Your task to perform on an android device: turn smart compose on in the gmail app Image 0: 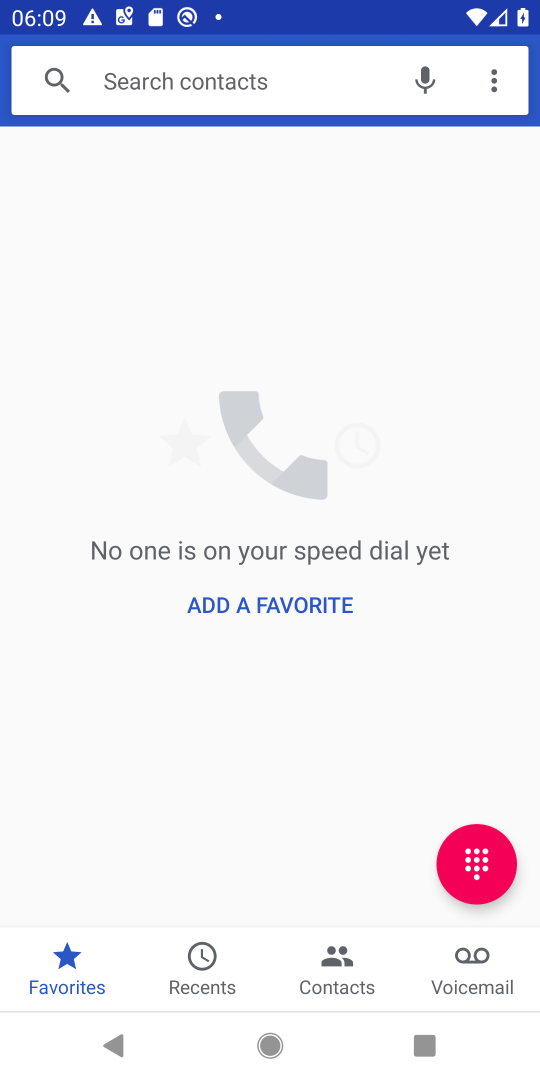
Step 0: press home button
Your task to perform on an android device: turn smart compose on in the gmail app Image 1: 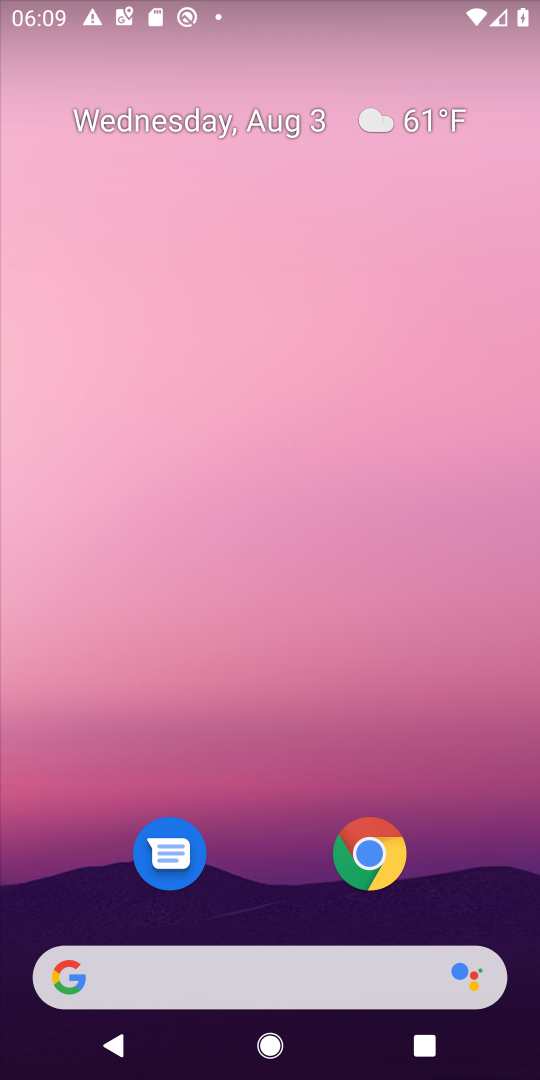
Step 1: drag from (259, 735) to (271, 243)
Your task to perform on an android device: turn smart compose on in the gmail app Image 2: 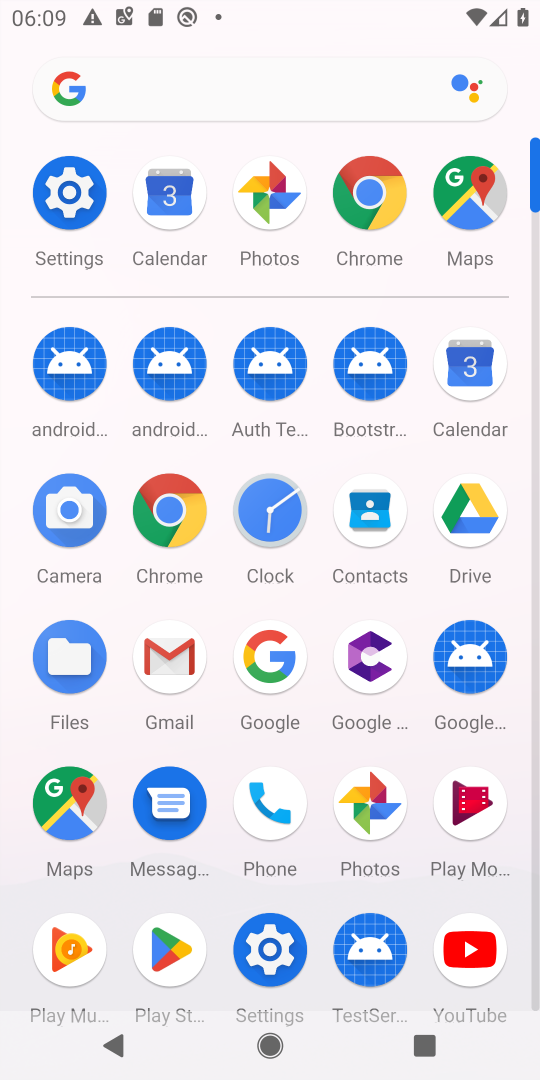
Step 2: click (172, 655)
Your task to perform on an android device: turn smart compose on in the gmail app Image 3: 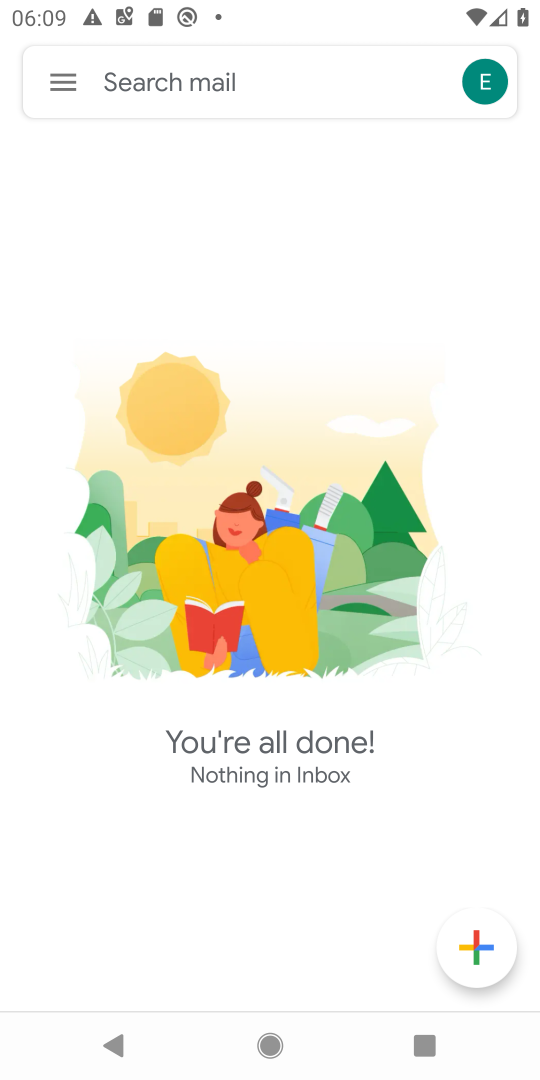
Step 3: click (66, 80)
Your task to perform on an android device: turn smart compose on in the gmail app Image 4: 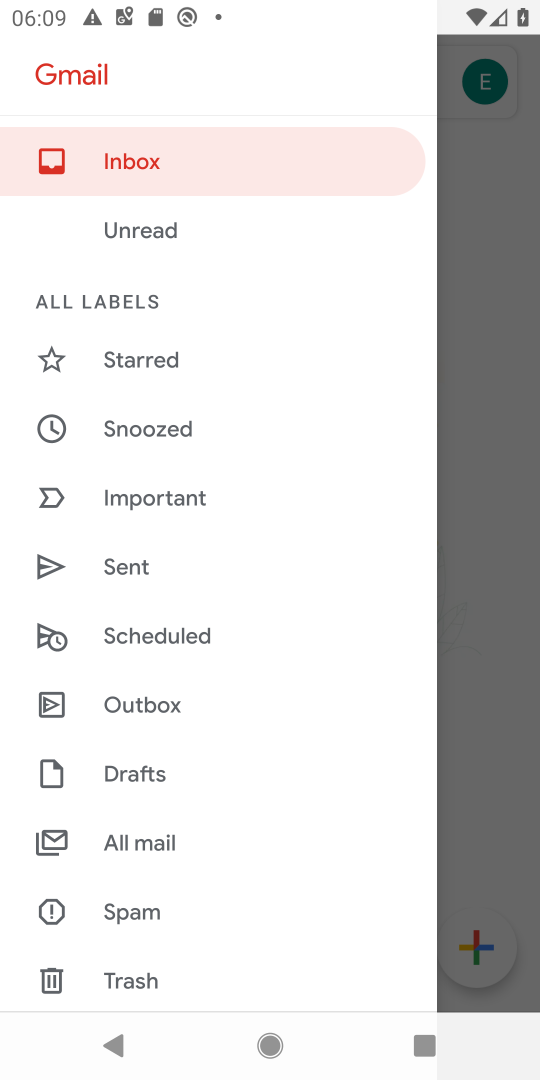
Step 4: drag from (140, 937) to (205, 339)
Your task to perform on an android device: turn smart compose on in the gmail app Image 5: 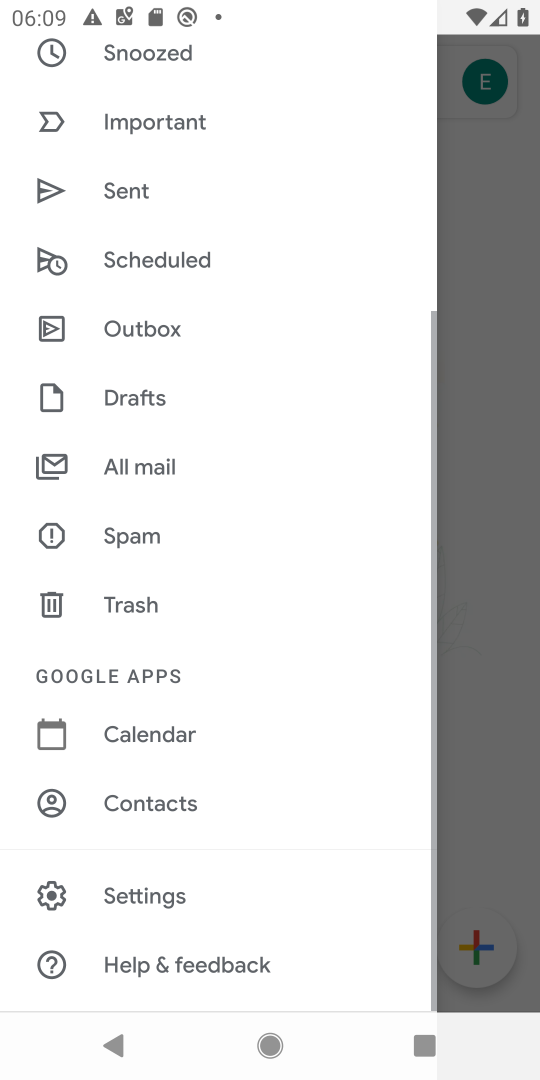
Step 5: click (151, 892)
Your task to perform on an android device: turn smart compose on in the gmail app Image 6: 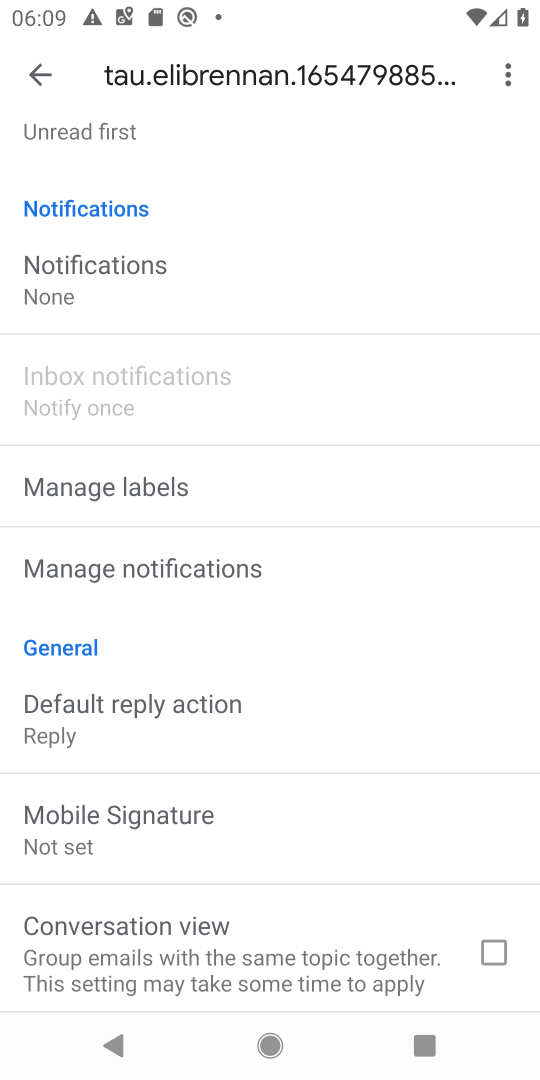
Step 6: task complete